Your task to perform on an android device: Open Android settings Image 0: 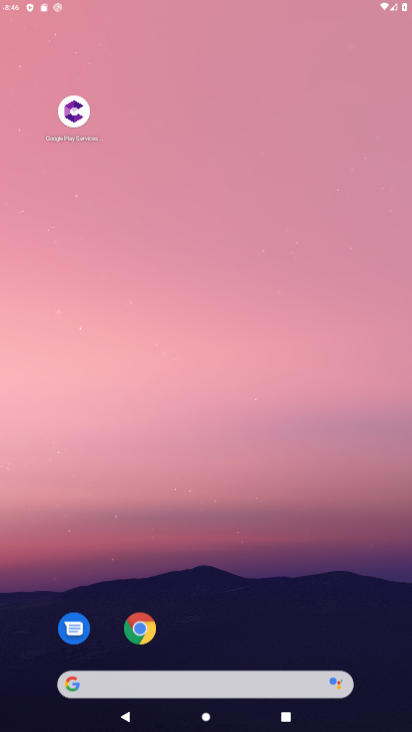
Step 0: press home button
Your task to perform on an android device: Open Android settings Image 1: 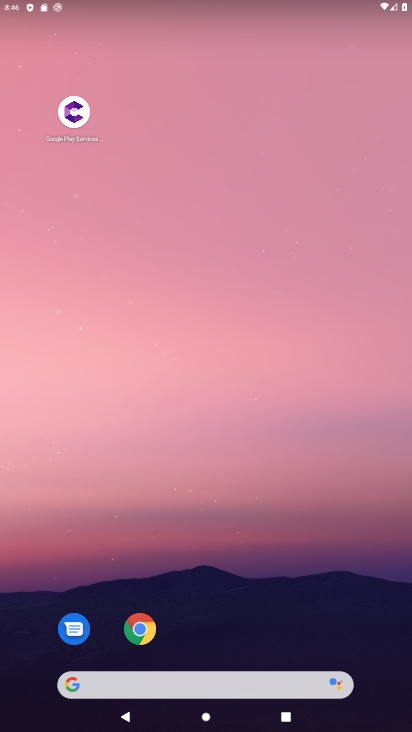
Step 1: drag from (375, 660) to (351, 102)
Your task to perform on an android device: Open Android settings Image 2: 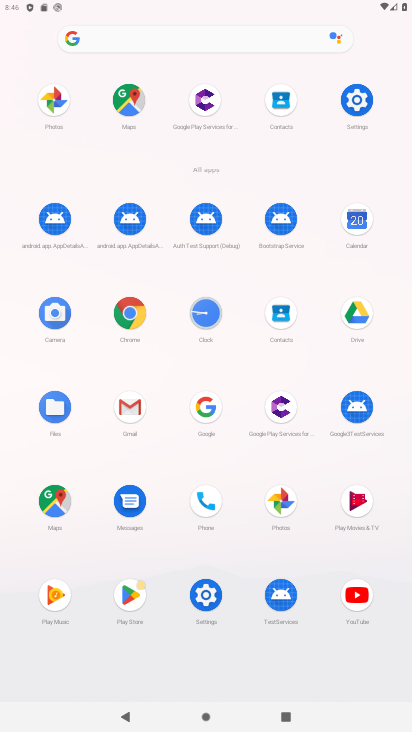
Step 2: click (205, 596)
Your task to perform on an android device: Open Android settings Image 3: 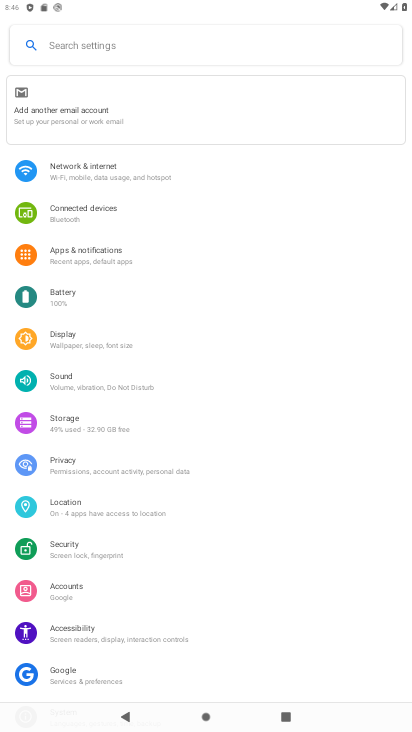
Step 3: drag from (253, 642) to (233, 247)
Your task to perform on an android device: Open Android settings Image 4: 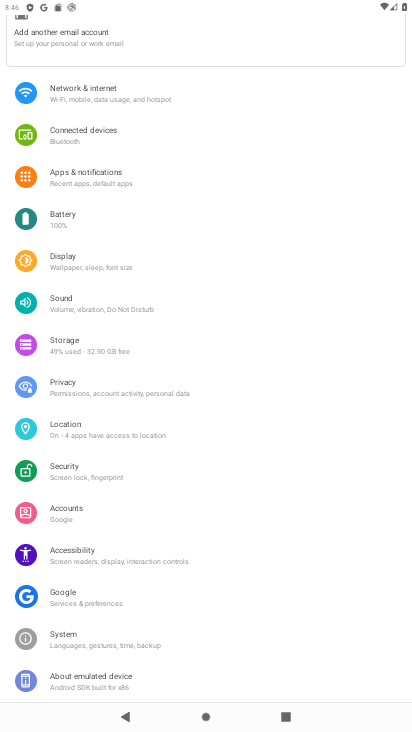
Step 4: click (78, 679)
Your task to perform on an android device: Open Android settings Image 5: 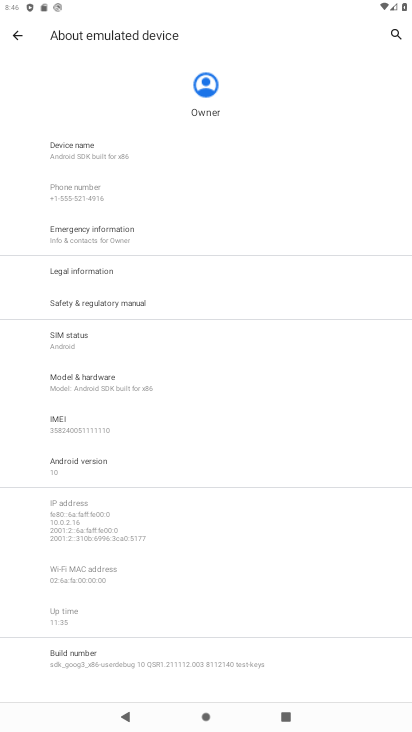
Step 5: task complete